Your task to perform on an android device: Search for Mexican restaurants on Maps Image 0: 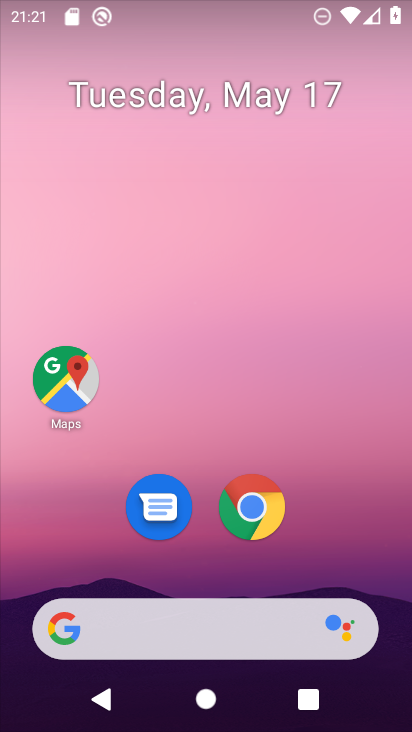
Step 0: click (65, 379)
Your task to perform on an android device: Search for Mexican restaurants on Maps Image 1: 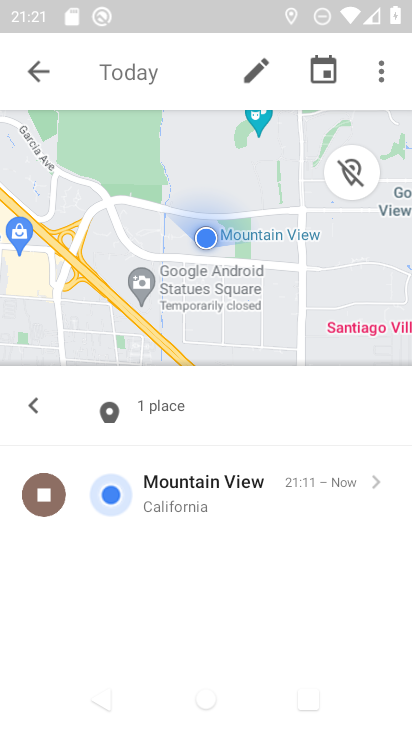
Step 1: click (34, 77)
Your task to perform on an android device: Search for Mexican restaurants on Maps Image 2: 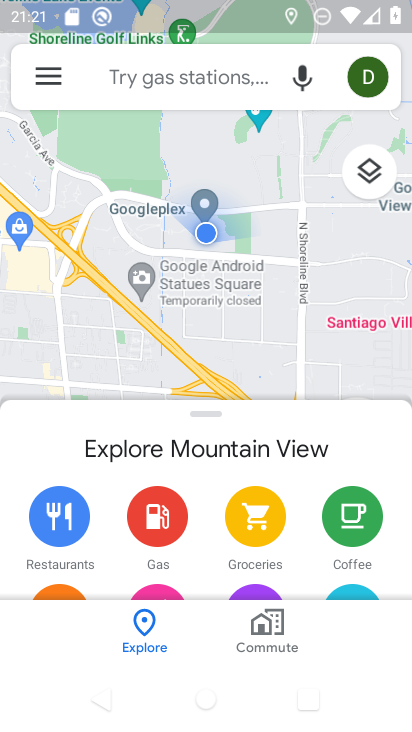
Step 2: click (119, 78)
Your task to perform on an android device: Search for Mexican restaurants on Maps Image 3: 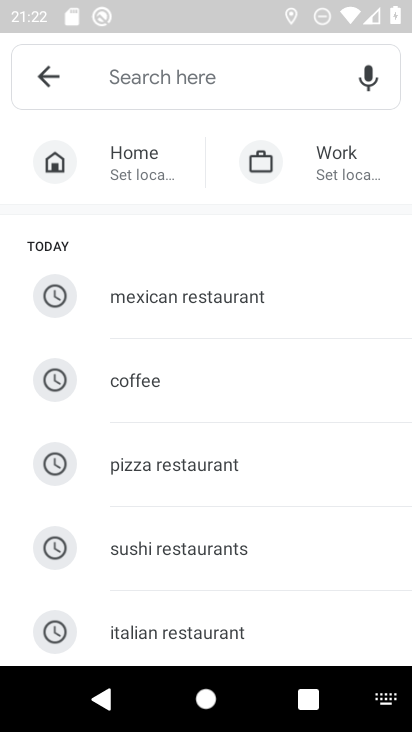
Step 3: type "mexican restaurnat"
Your task to perform on an android device: Search for Mexican restaurants on Maps Image 4: 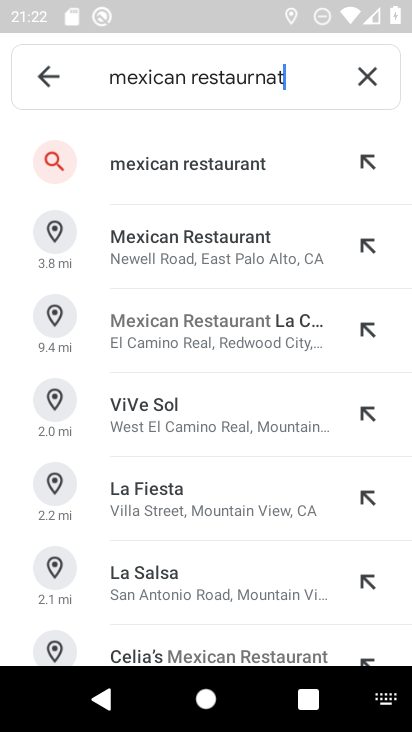
Step 4: click (158, 168)
Your task to perform on an android device: Search for Mexican restaurants on Maps Image 5: 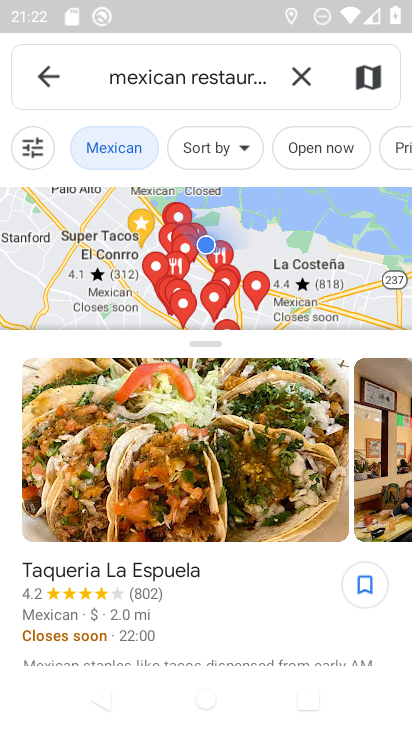
Step 5: task complete